Your task to perform on an android device: all mails in gmail Image 0: 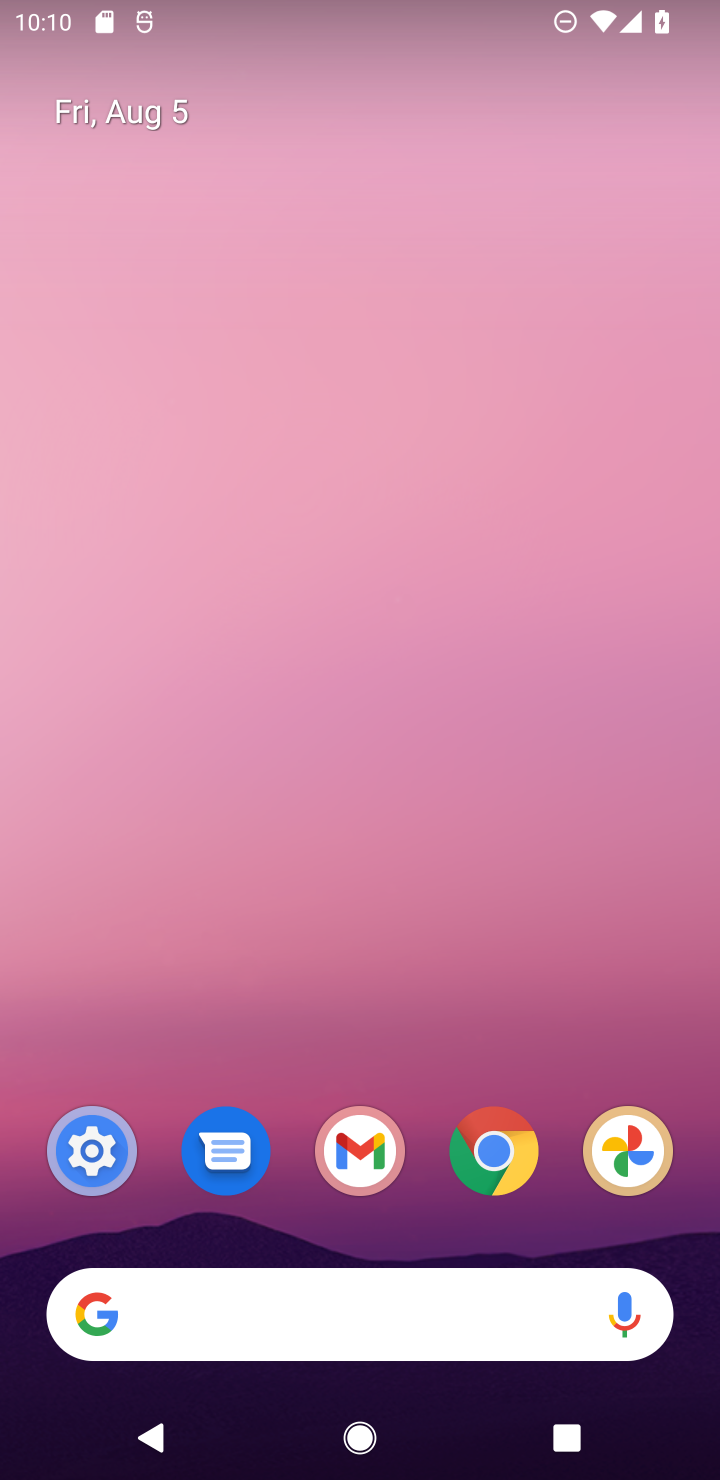
Step 0: click (376, 1147)
Your task to perform on an android device: all mails in gmail Image 1: 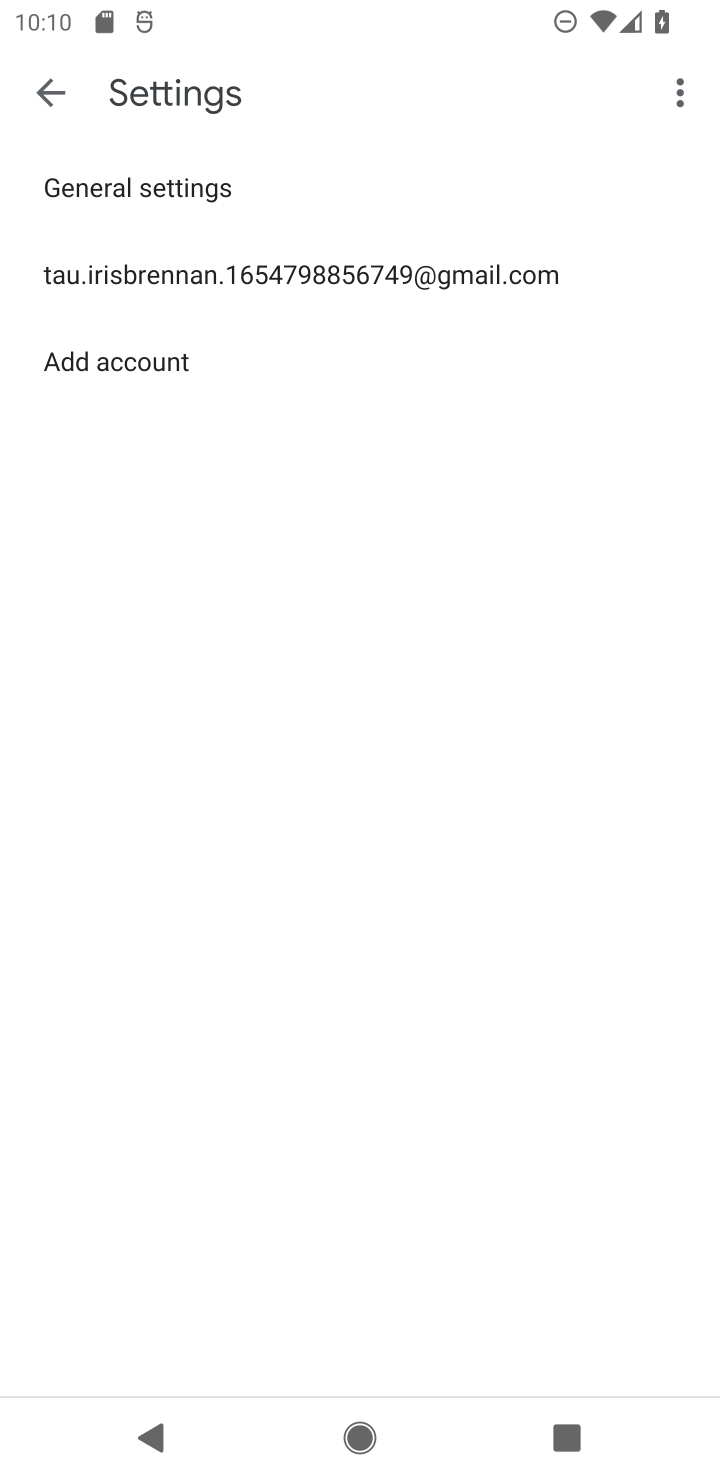
Step 1: click (46, 82)
Your task to perform on an android device: all mails in gmail Image 2: 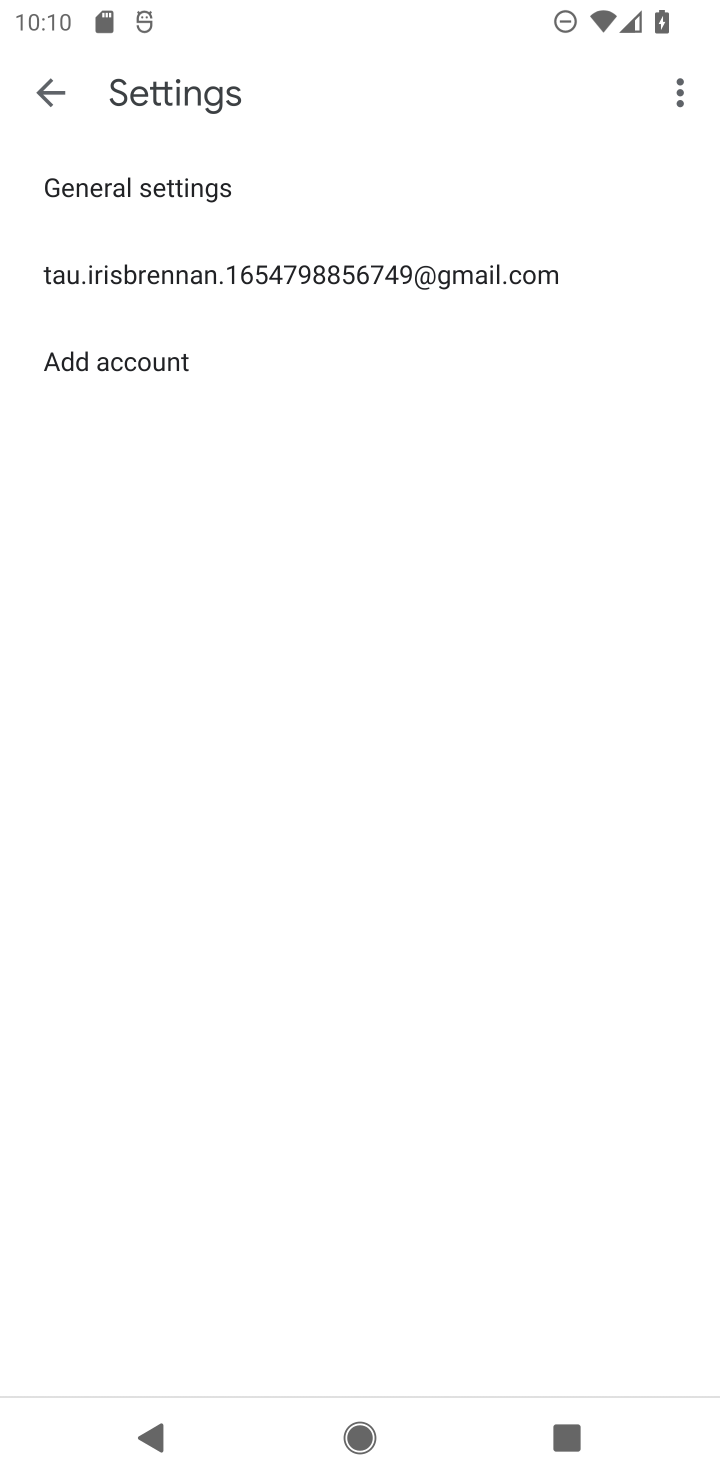
Step 2: click (46, 82)
Your task to perform on an android device: all mails in gmail Image 3: 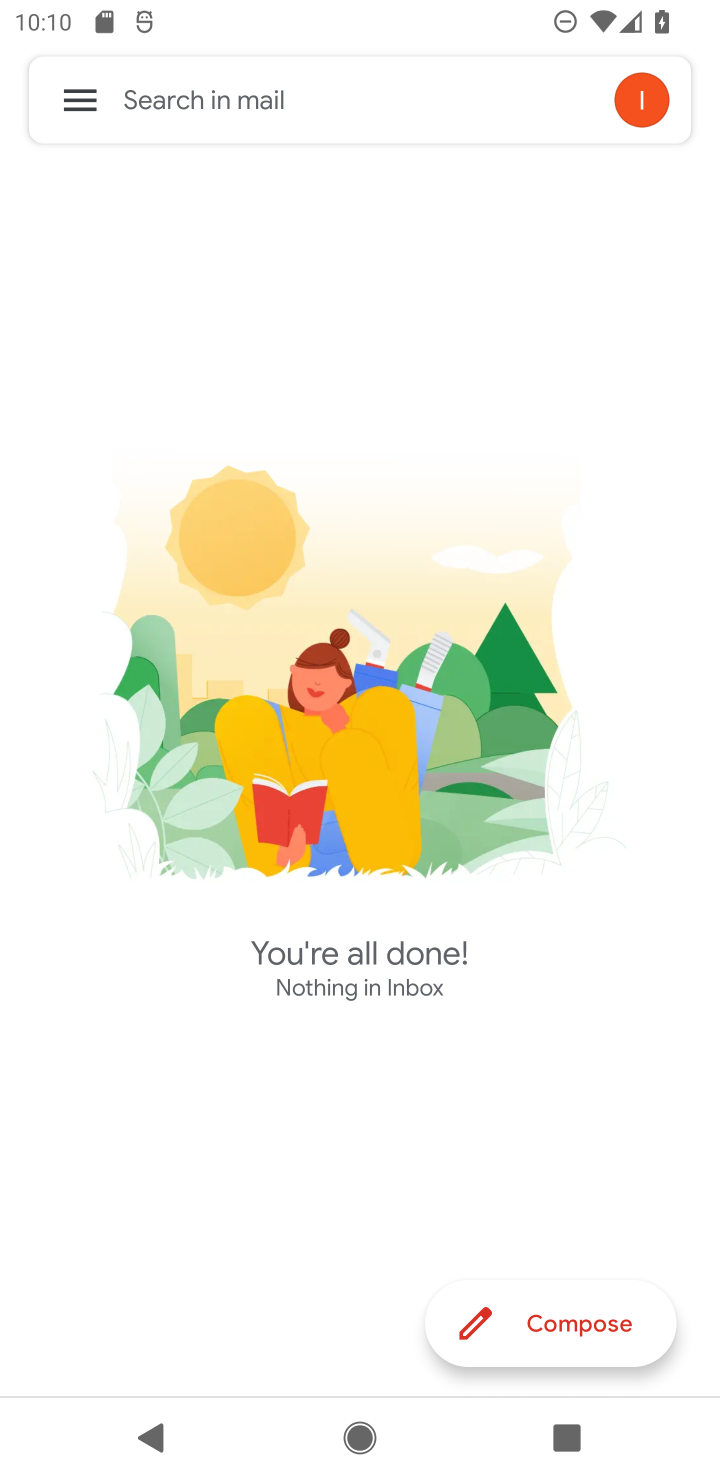
Step 3: click (83, 93)
Your task to perform on an android device: all mails in gmail Image 4: 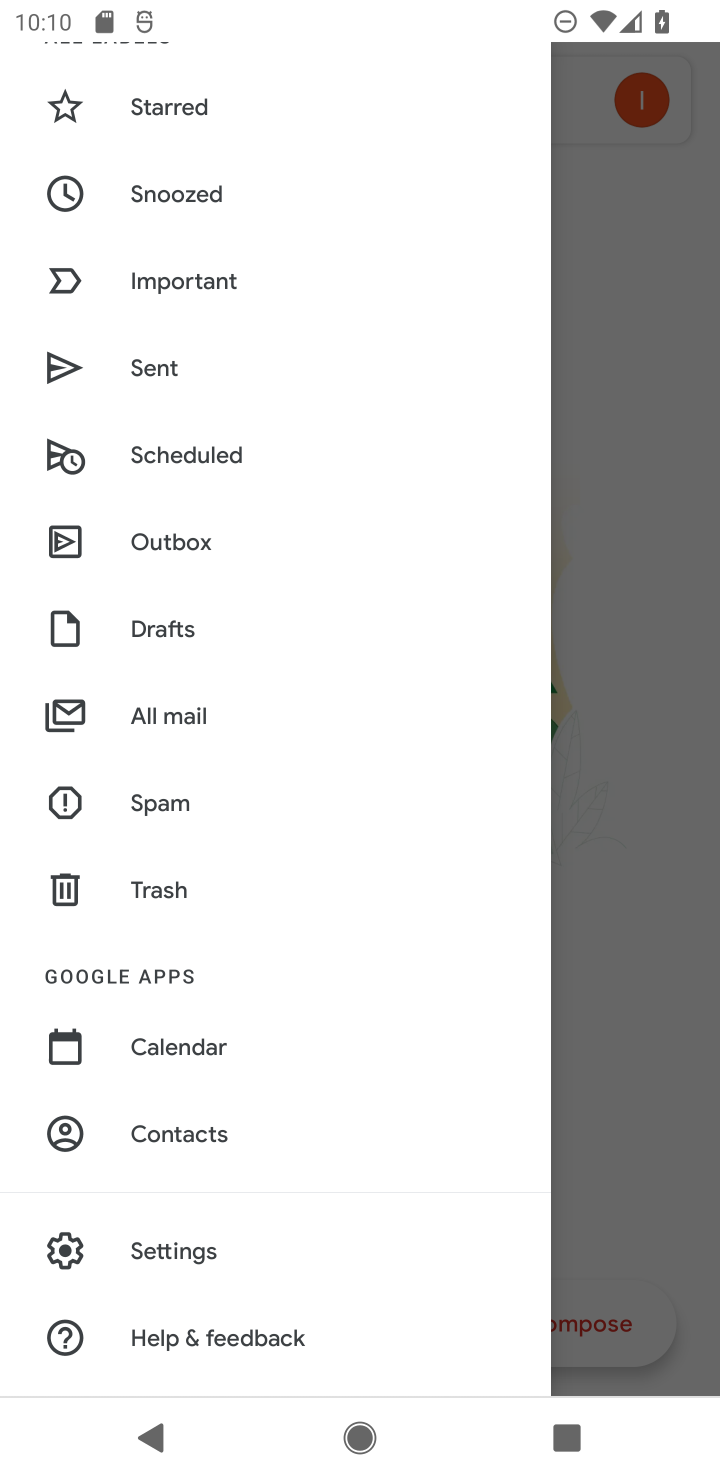
Step 4: click (195, 707)
Your task to perform on an android device: all mails in gmail Image 5: 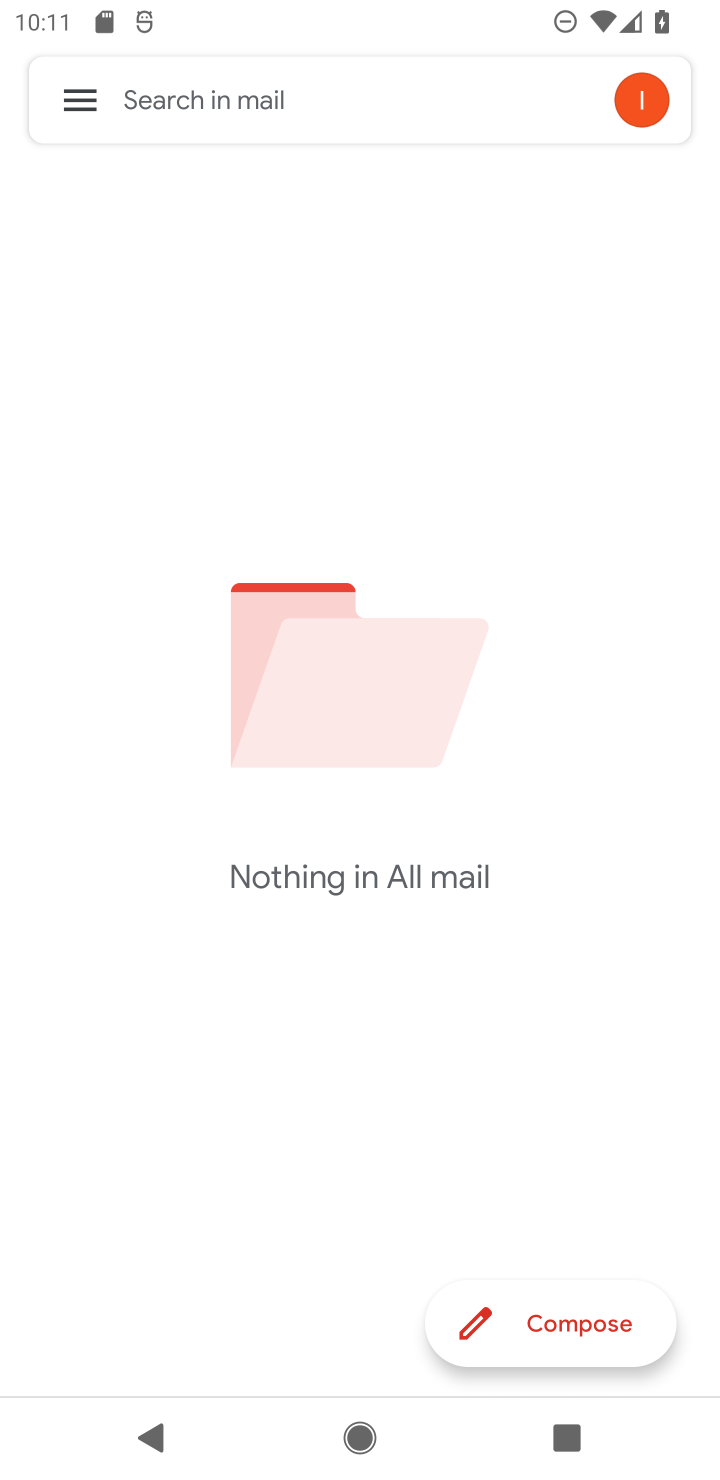
Step 5: task complete